Your task to perform on an android device: toggle sleep mode Image 0: 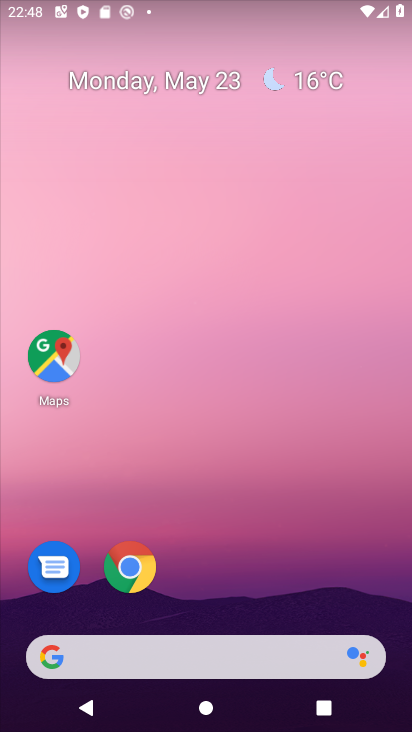
Step 0: click (265, 6)
Your task to perform on an android device: toggle sleep mode Image 1: 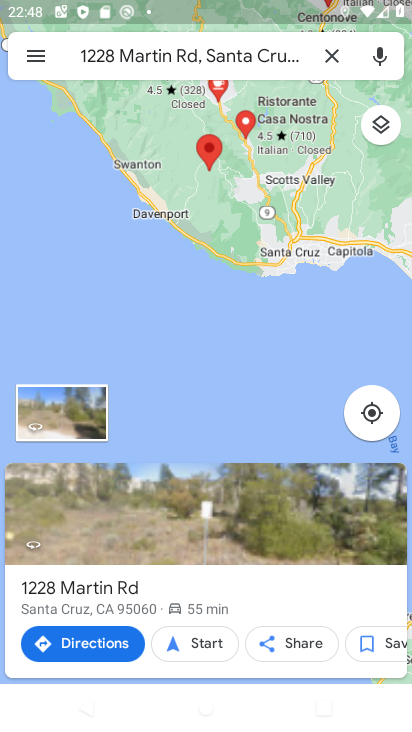
Step 1: press home button
Your task to perform on an android device: toggle sleep mode Image 2: 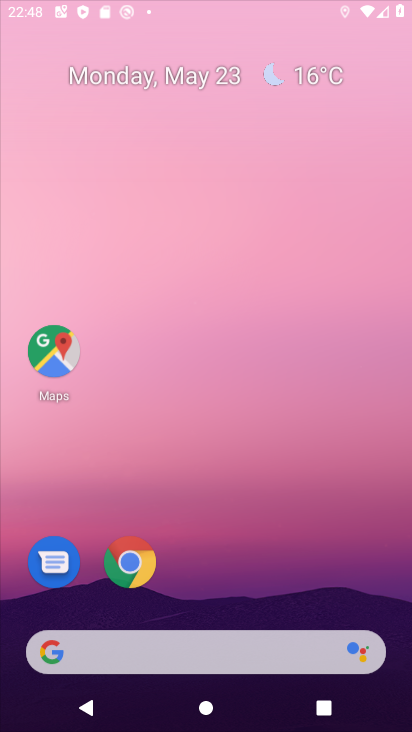
Step 2: drag from (235, 550) to (328, 47)
Your task to perform on an android device: toggle sleep mode Image 3: 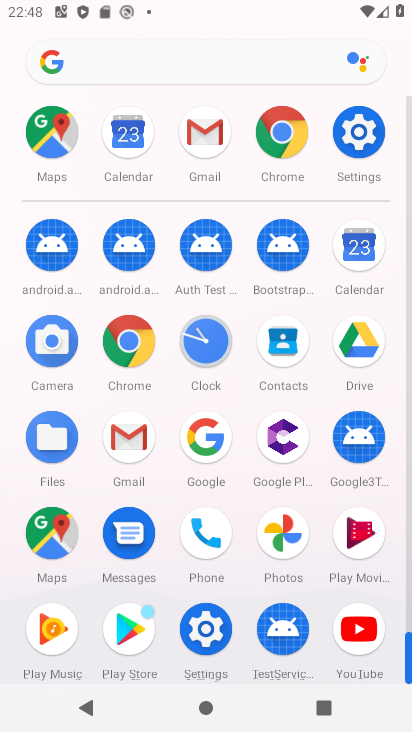
Step 3: click (210, 629)
Your task to perform on an android device: toggle sleep mode Image 4: 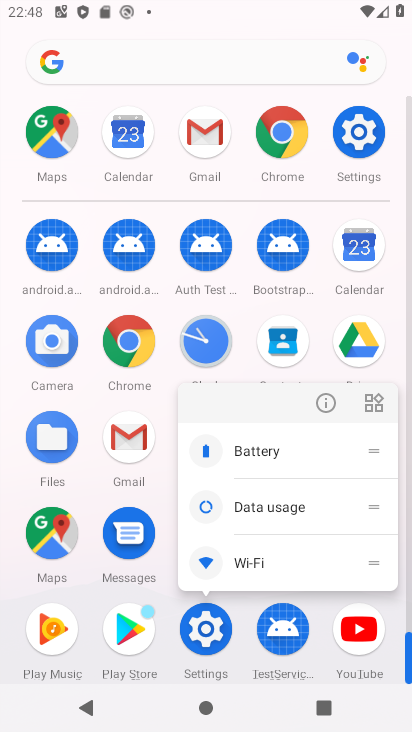
Step 4: click (338, 387)
Your task to perform on an android device: toggle sleep mode Image 5: 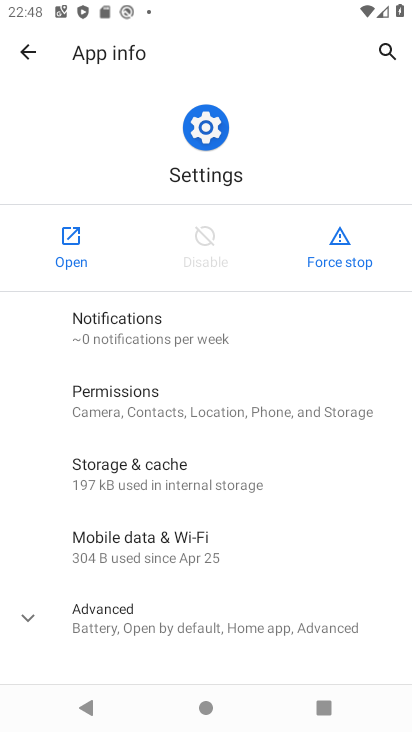
Step 5: click (79, 239)
Your task to perform on an android device: toggle sleep mode Image 6: 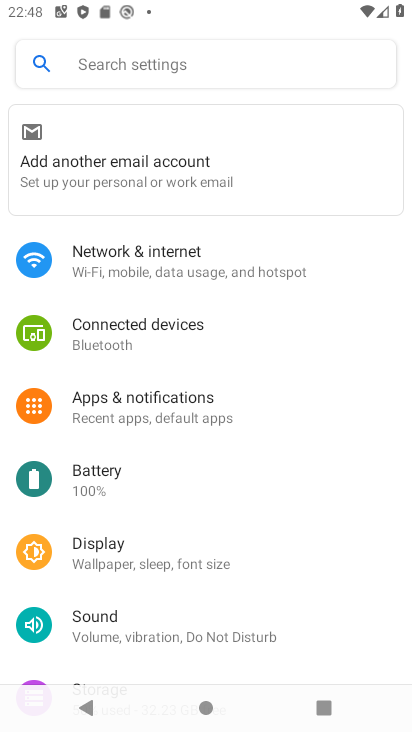
Step 6: click (154, 555)
Your task to perform on an android device: toggle sleep mode Image 7: 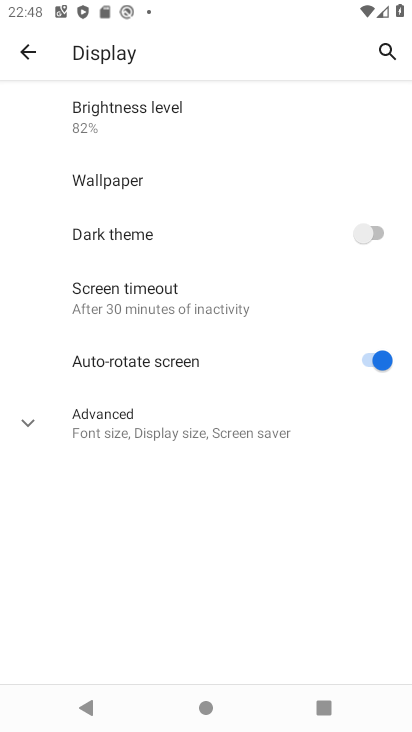
Step 7: click (168, 294)
Your task to perform on an android device: toggle sleep mode Image 8: 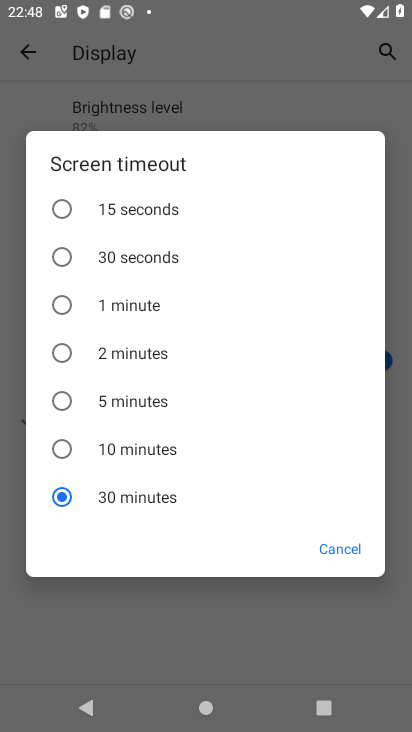
Step 8: task complete